Your task to perform on an android device: toggle notification dots Image 0: 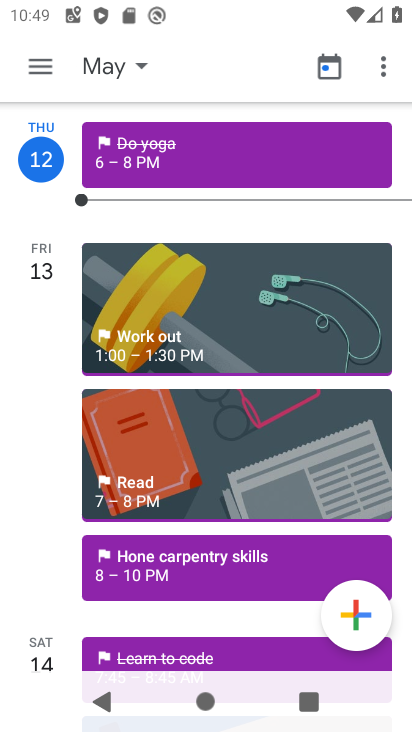
Step 0: press home button
Your task to perform on an android device: toggle notification dots Image 1: 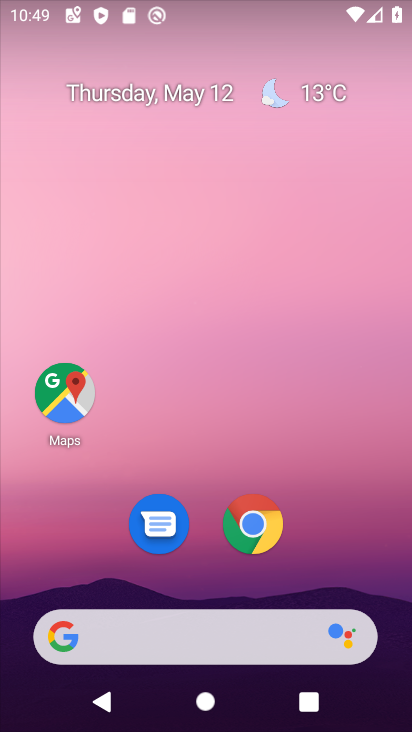
Step 1: drag from (205, 453) to (247, 29)
Your task to perform on an android device: toggle notification dots Image 2: 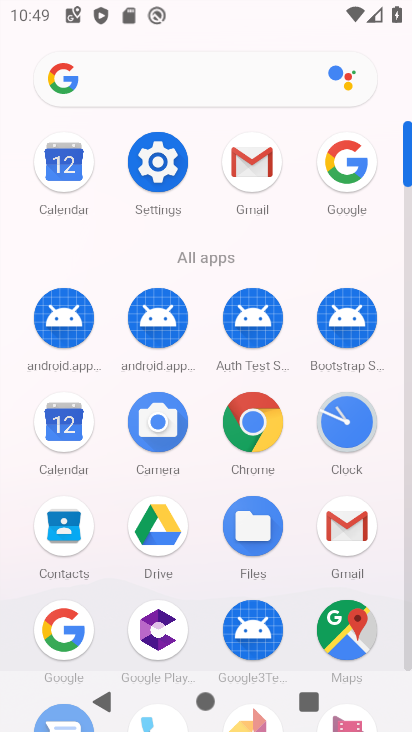
Step 2: click (157, 177)
Your task to perform on an android device: toggle notification dots Image 3: 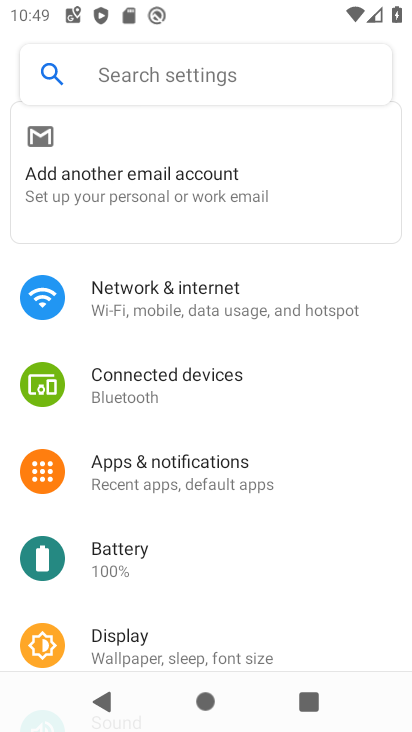
Step 3: click (218, 463)
Your task to perform on an android device: toggle notification dots Image 4: 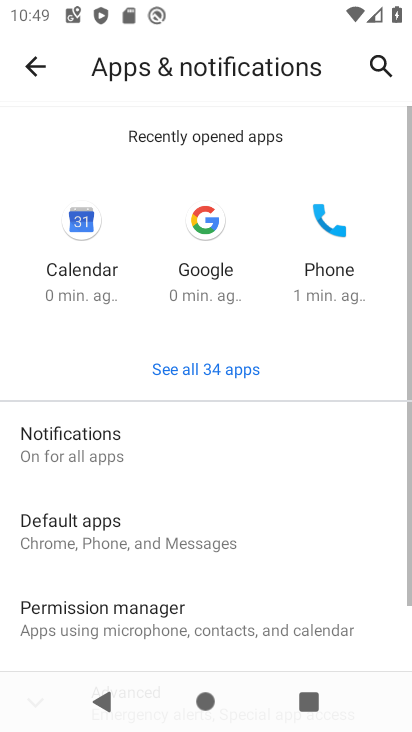
Step 4: click (220, 432)
Your task to perform on an android device: toggle notification dots Image 5: 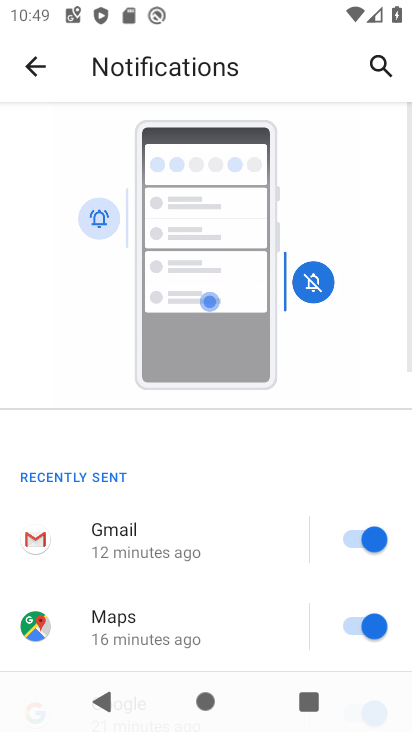
Step 5: drag from (194, 622) to (303, 127)
Your task to perform on an android device: toggle notification dots Image 6: 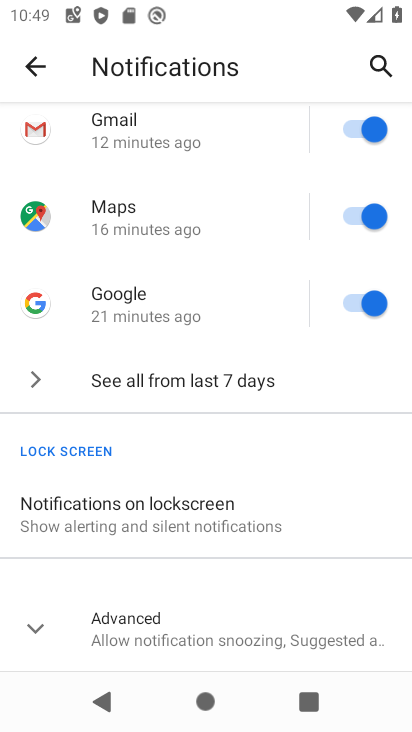
Step 6: click (31, 636)
Your task to perform on an android device: toggle notification dots Image 7: 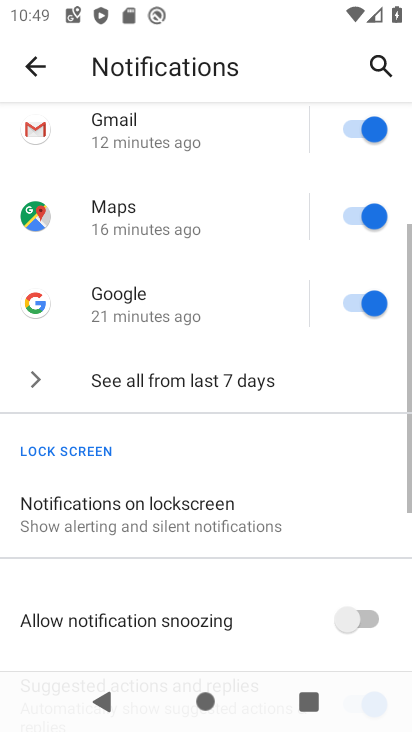
Step 7: drag from (117, 593) to (238, 230)
Your task to perform on an android device: toggle notification dots Image 8: 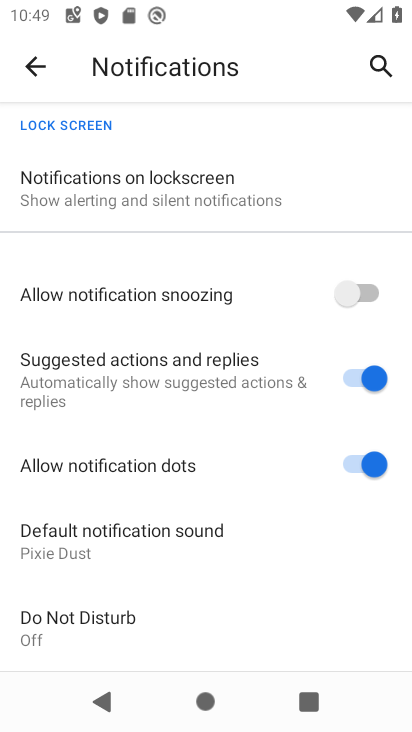
Step 8: click (352, 462)
Your task to perform on an android device: toggle notification dots Image 9: 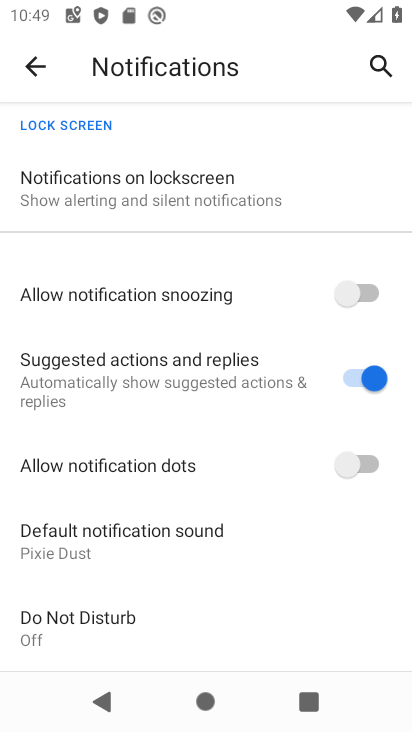
Step 9: task complete